Your task to perform on an android device: Go to notification settings Image 0: 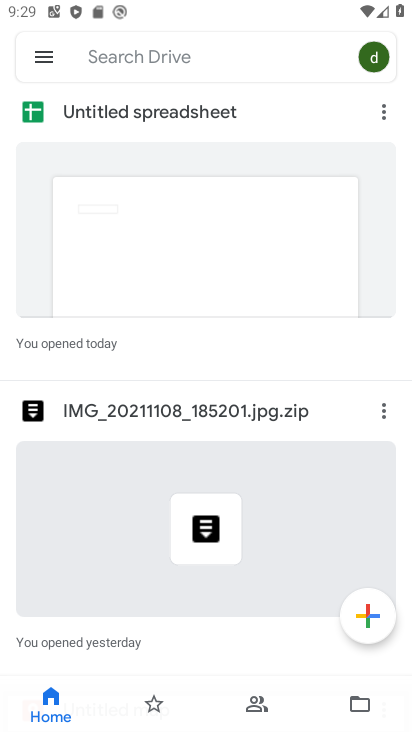
Step 0: press home button
Your task to perform on an android device: Go to notification settings Image 1: 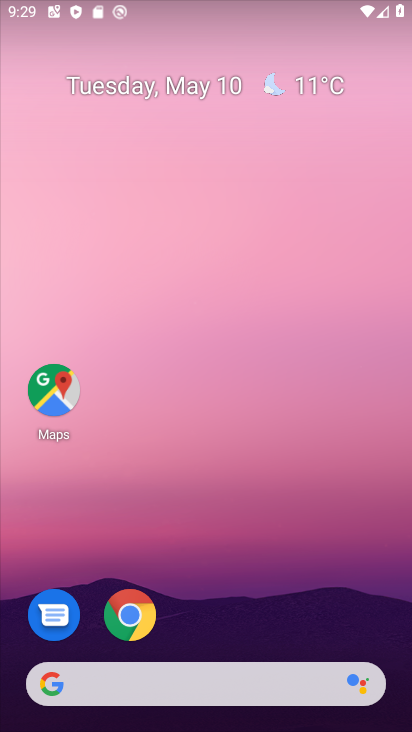
Step 1: drag from (266, 587) to (175, 85)
Your task to perform on an android device: Go to notification settings Image 2: 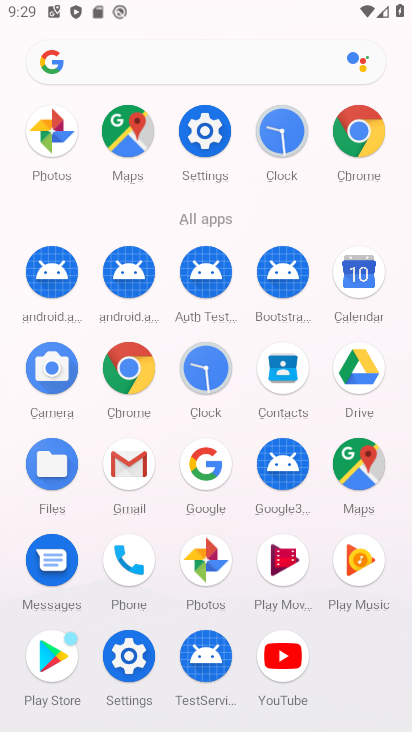
Step 2: click (210, 134)
Your task to perform on an android device: Go to notification settings Image 3: 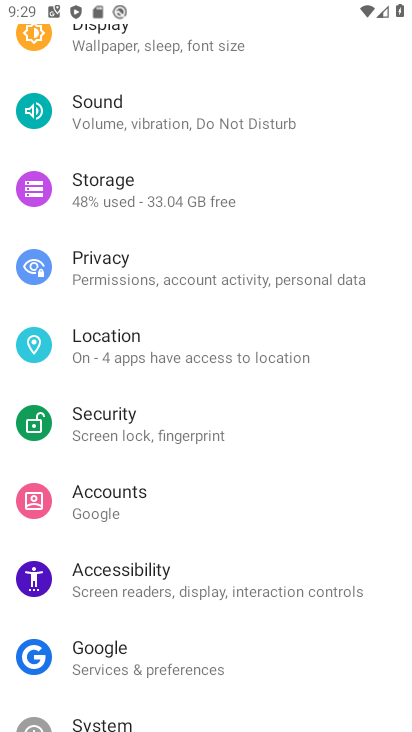
Step 3: drag from (236, 146) to (219, 626)
Your task to perform on an android device: Go to notification settings Image 4: 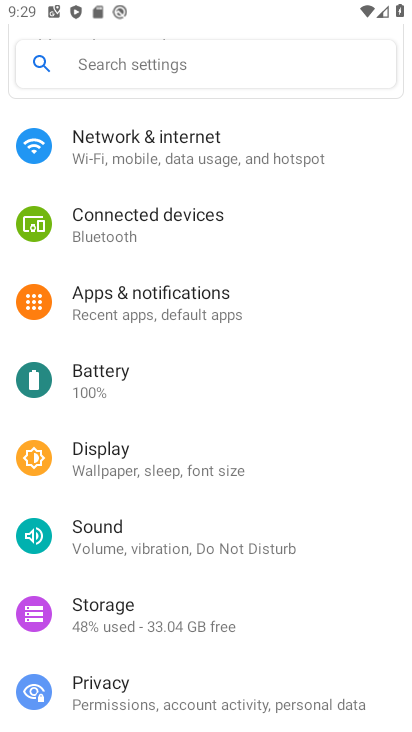
Step 4: click (140, 303)
Your task to perform on an android device: Go to notification settings Image 5: 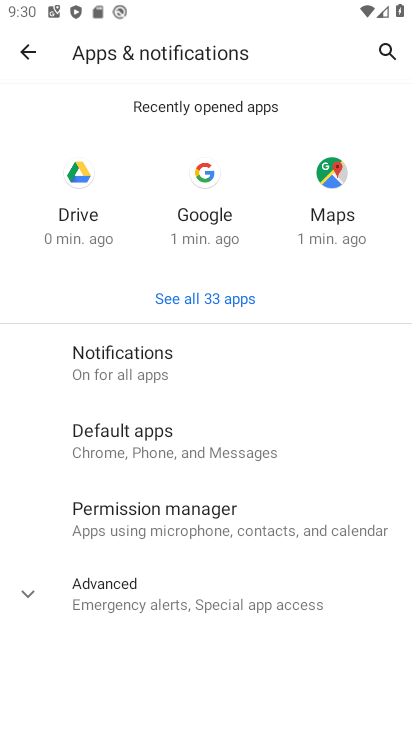
Step 5: task complete